Your task to perform on an android device: toggle javascript in the chrome app Image 0: 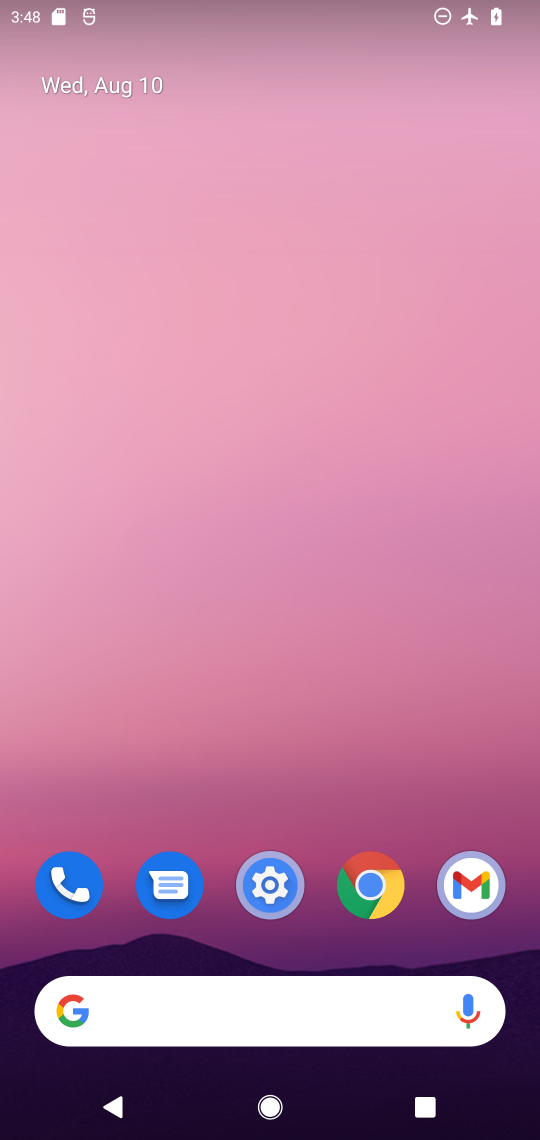
Step 0: click (376, 884)
Your task to perform on an android device: toggle javascript in the chrome app Image 1: 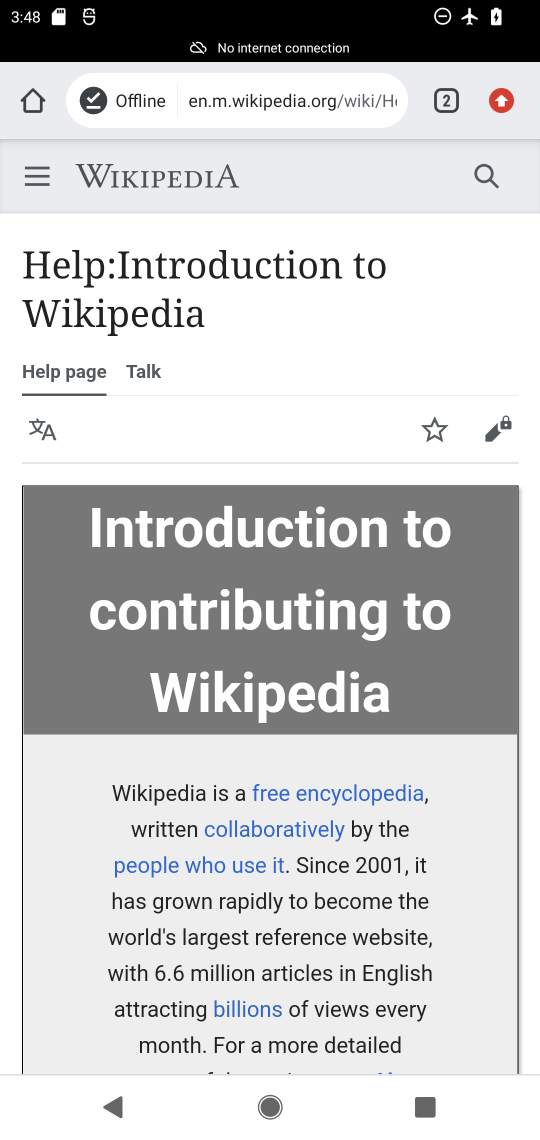
Step 1: click (501, 90)
Your task to perform on an android device: toggle javascript in the chrome app Image 2: 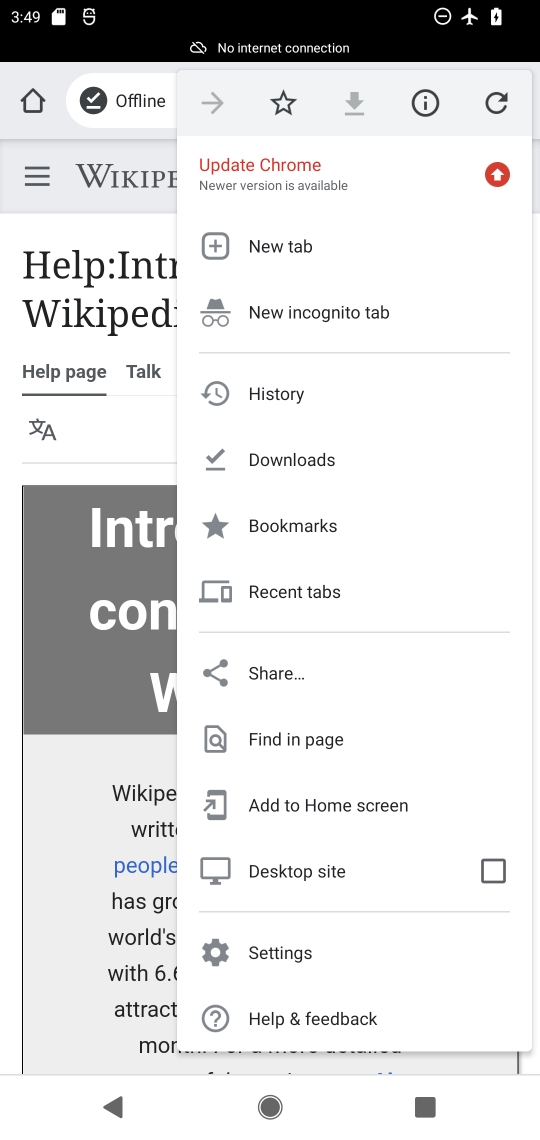
Step 2: click (277, 956)
Your task to perform on an android device: toggle javascript in the chrome app Image 3: 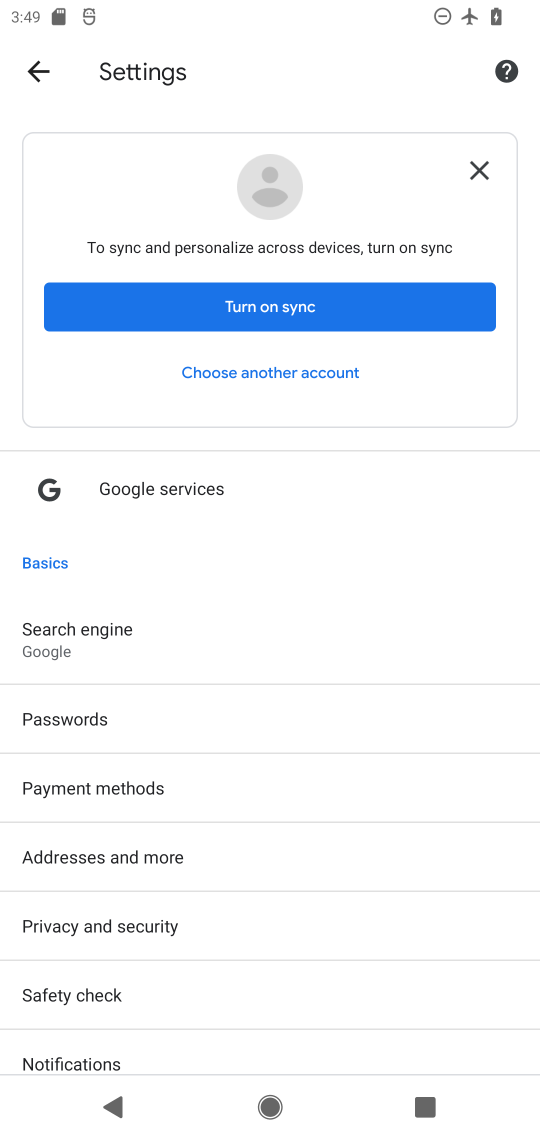
Step 3: drag from (285, 974) to (227, 431)
Your task to perform on an android device: toggle javascript in the chrome app Image 4: 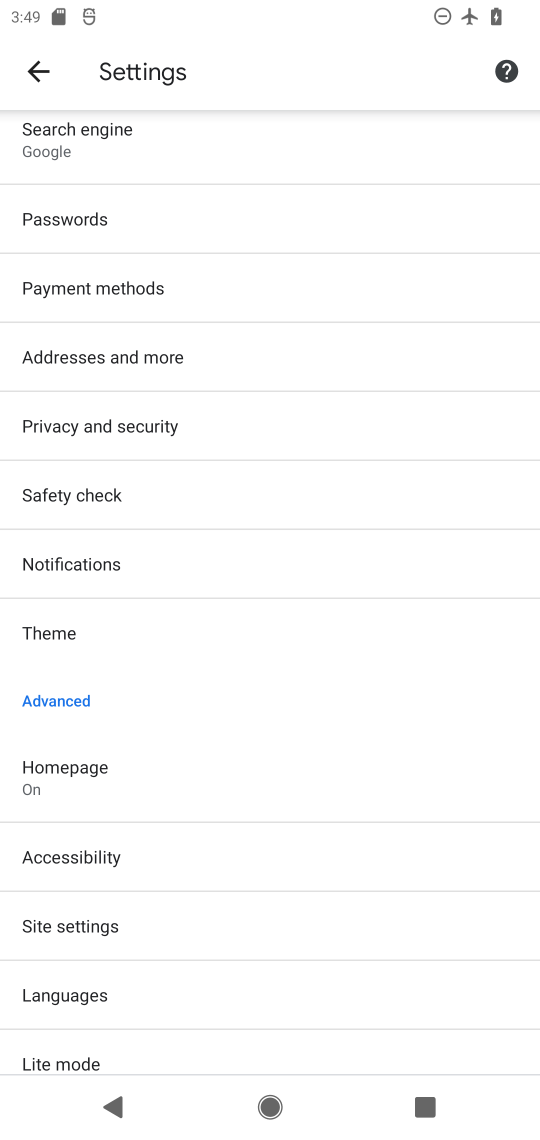
Step 4: click (86, 919)
Your task to perform on an android device: toggle javascript in the chrome app Image 5: 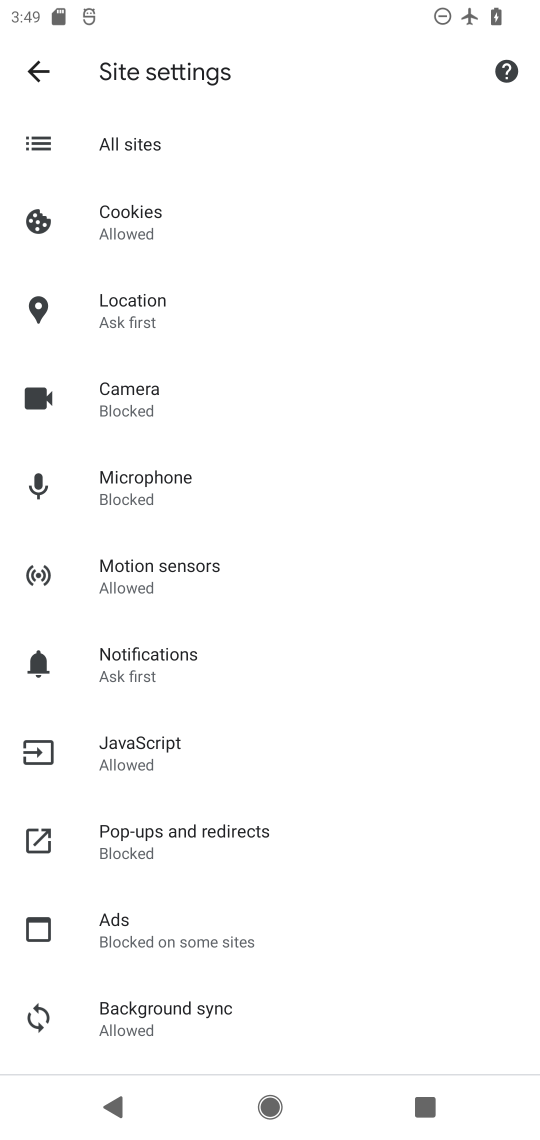
Step 5: click (136, 741)
Your task to perform on an android device: toggle javascript in the chrome app Image 6: 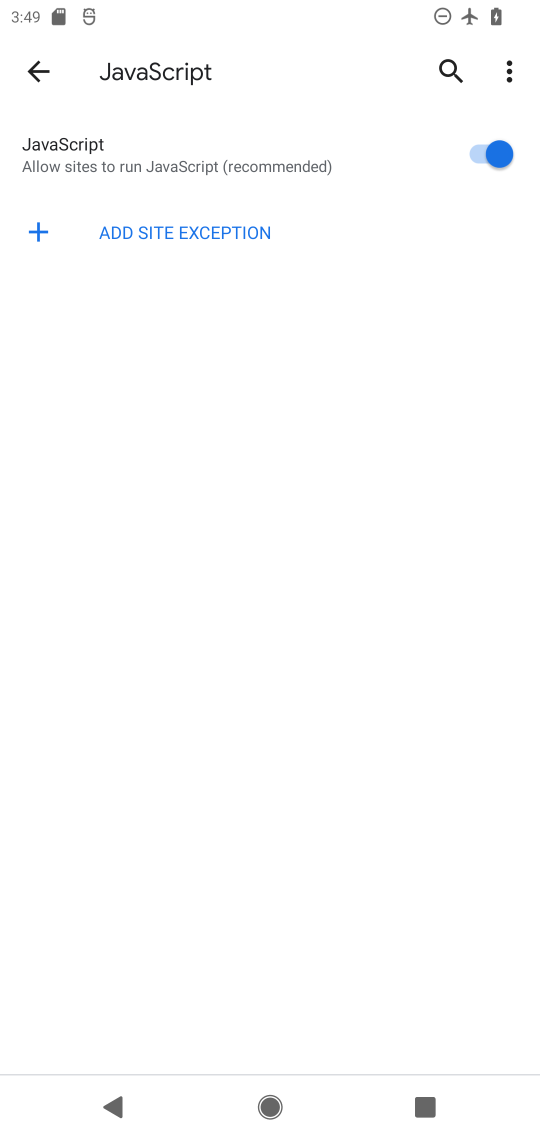
Step 6: click (505, 143)
Your task to perform on an android device: toggle javascript in the chrome app Image 7: 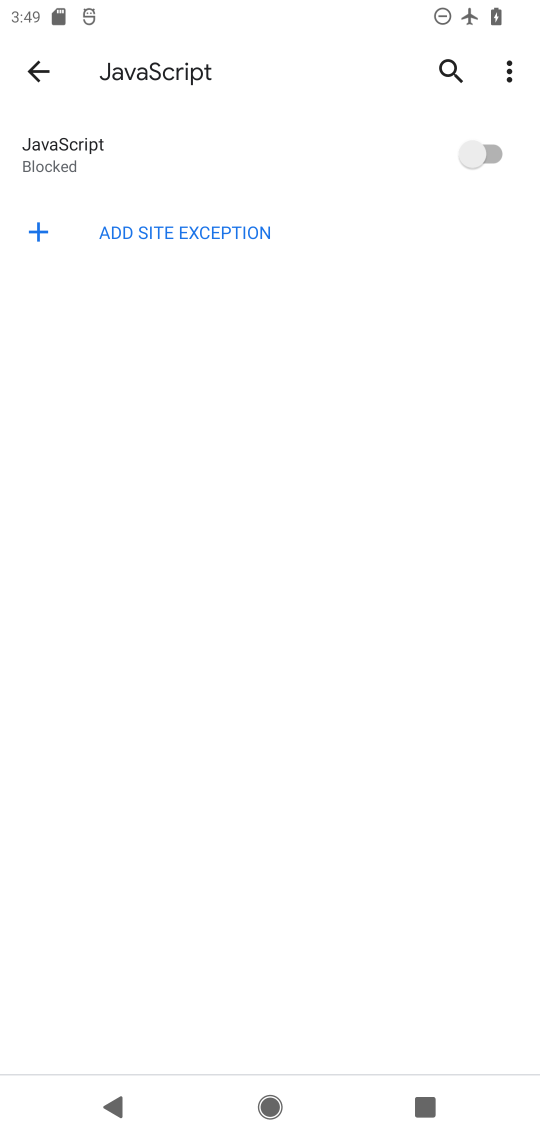
Step 7: task complete